Your task to perform on an android device: Go to accessibility settings Image 0: 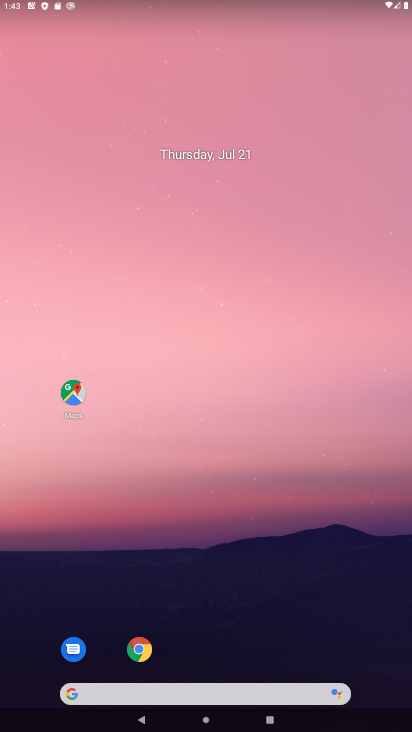
Step 0: drag from (230, 727) to (208, 12)
Your task to perform on an android device: Go to accessibility settings Image 1: 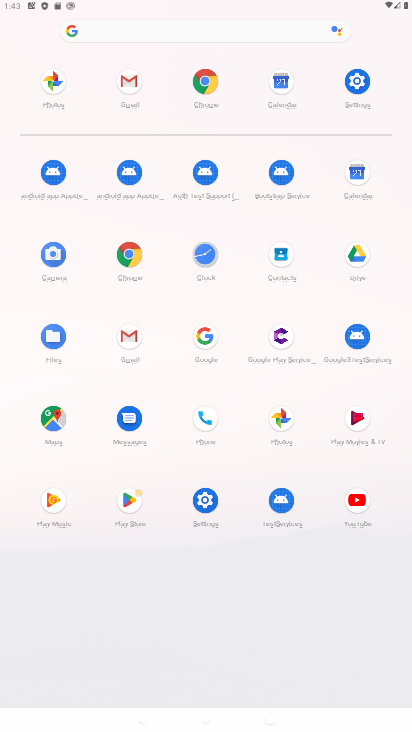
Step 1: click (359, 82)
Your task to perform on an android device: Go to accessibility settings Image 2: 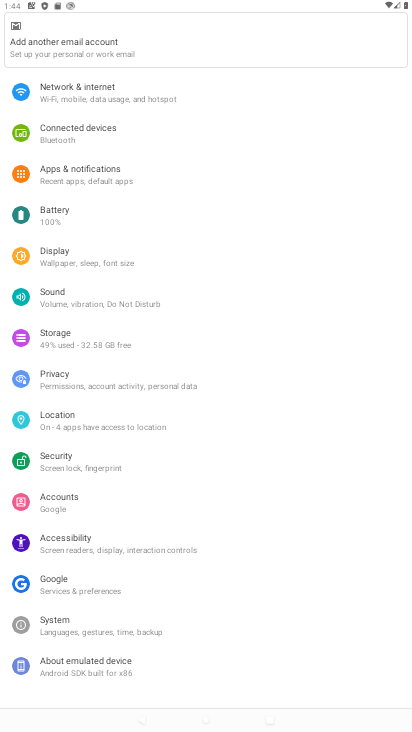
Step 2: click (60, 541)
Your task to perform on an android device: Go to accessibility settings Image 3: 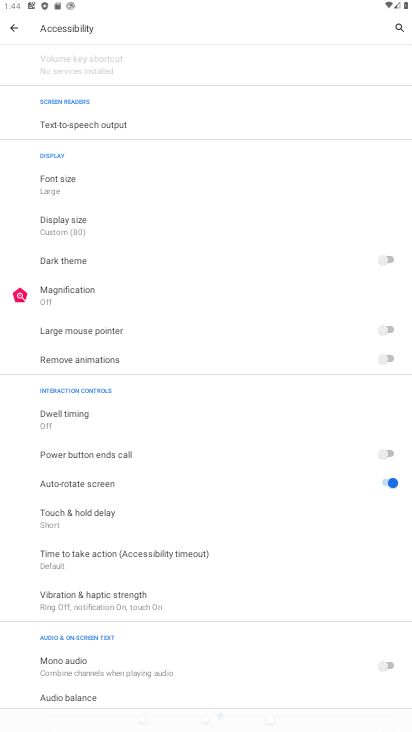
Step 3: task complete